Your task to perform on an android device: Go to network settings Image 0: 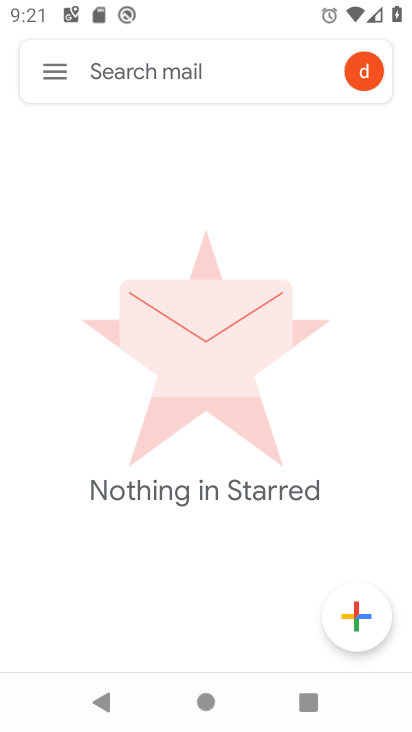
Step 0: press home button
Your task to perform on an android device: Go to network settings Image 1: 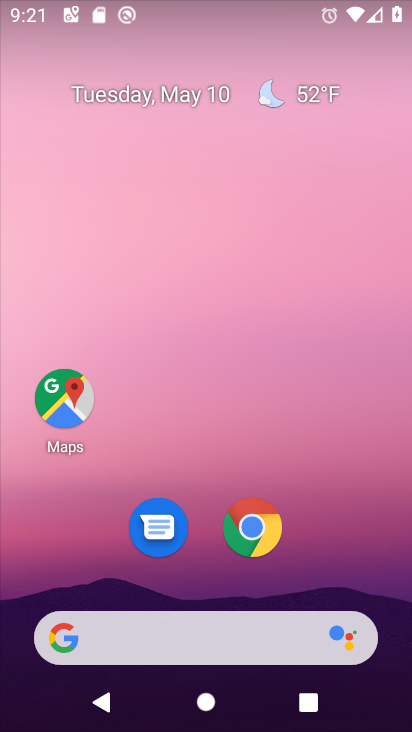
Step 1: drag from (332, 548) to (122, 172)
Your task to perform on an android device: Go to network settings Image 2: 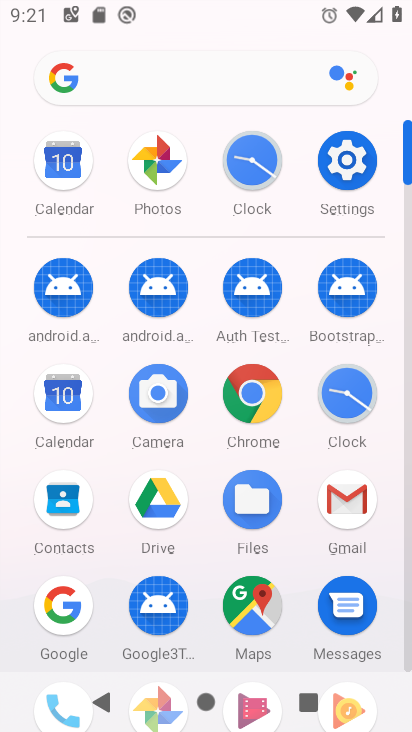
Step 2: click (345, 158)
Your task to perform on an android device: Go to network settings Image 3: 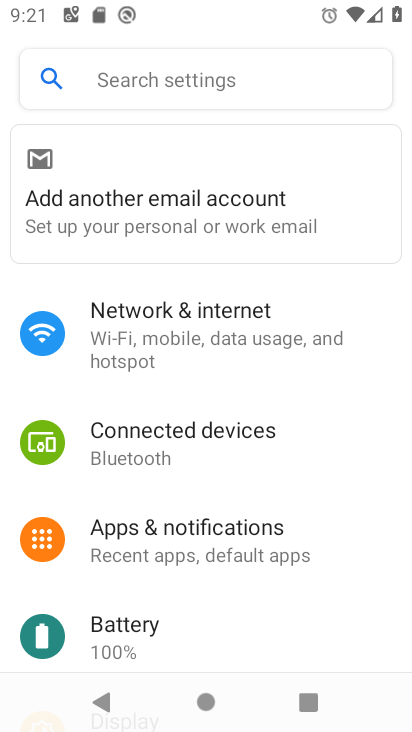
Step 3: click (156, 342)
Your task to perform on an android device: Go to network settings Image 4: 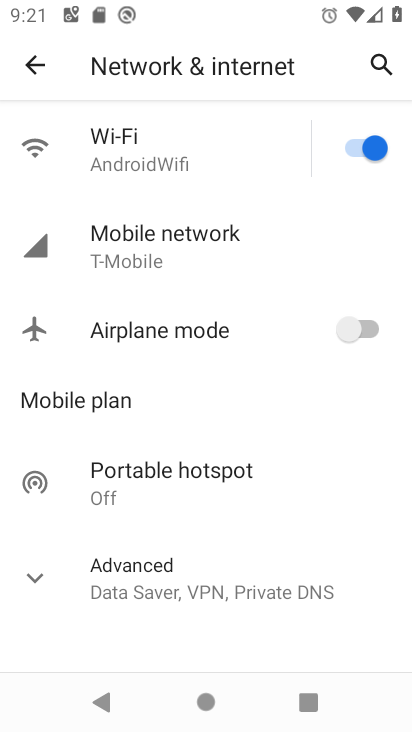
Step 4: click (128, 248)
Your task to perform on an android device: Go to network settings Image 5: 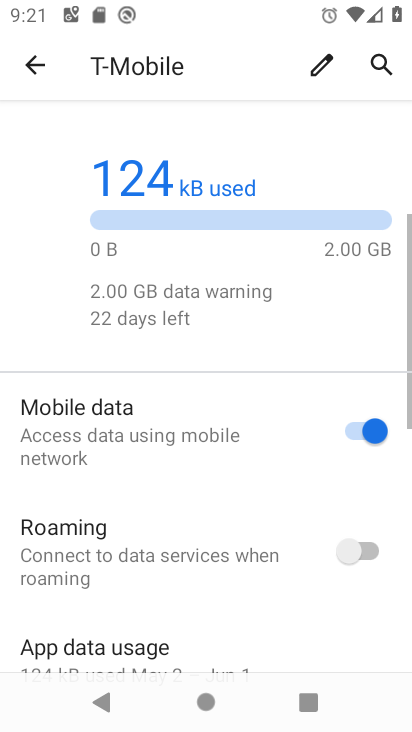
Step 5: drag from (133, 641) to (124, 246)
Your task to perform on an android device: Go to network settings Image 6: 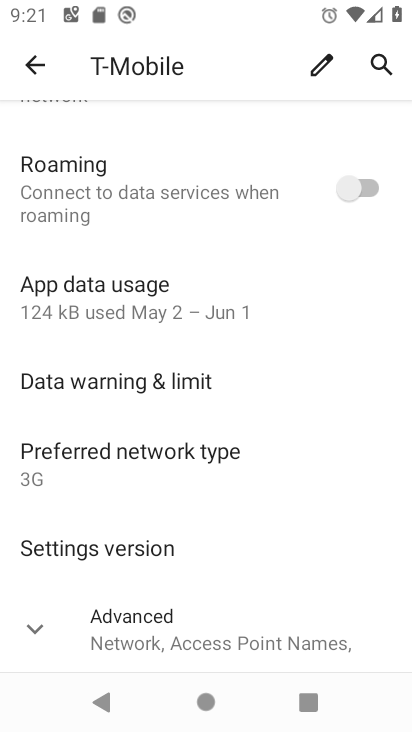
Step 6: click (107, 616)
Your task to perform on an android device: Go to network settings Image 7: 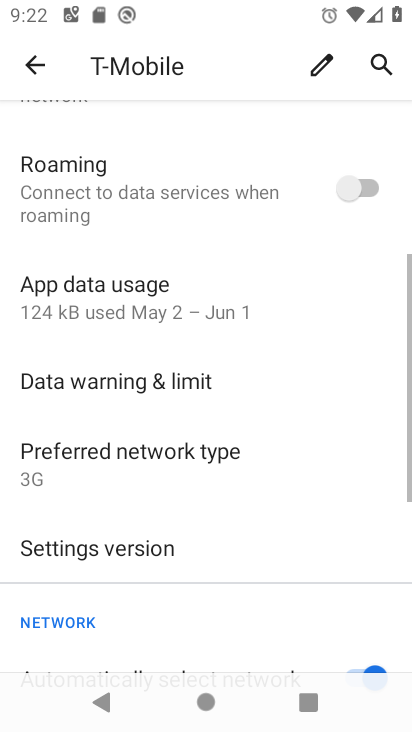
Step 7: task complete